Your task to perform on an android device: turn on showing notifications on the lock screen Image 0: 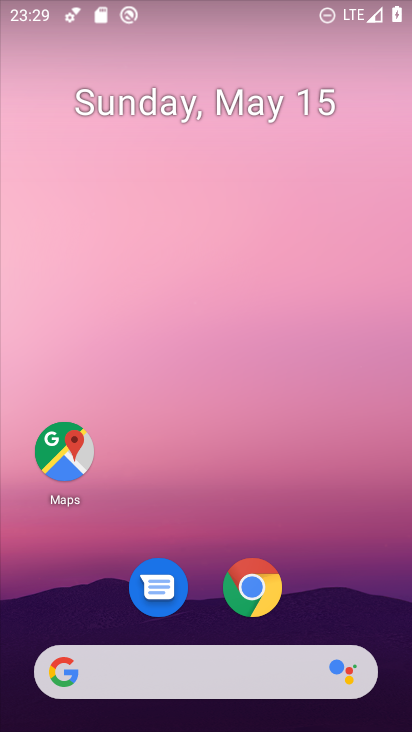
Step 0: drag from (214, 591) to (259, 118)
Your task to perform on an android device: turn on showing notifications on the lock screen Image 1: 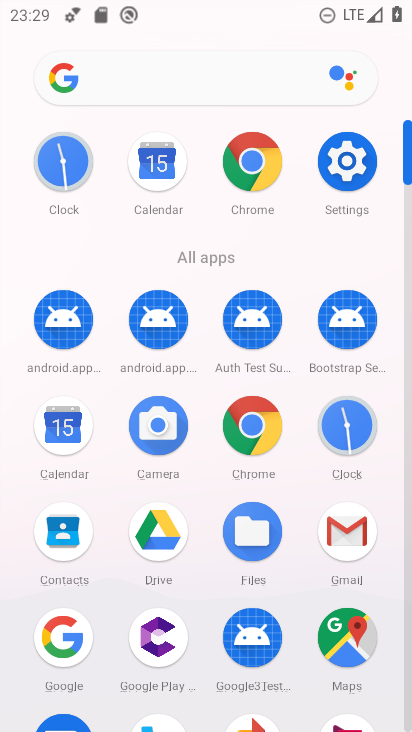
Step 1: click (327, 152)
Your task to perform on an android device: turn on showing notifications on the lock screen Image 2: 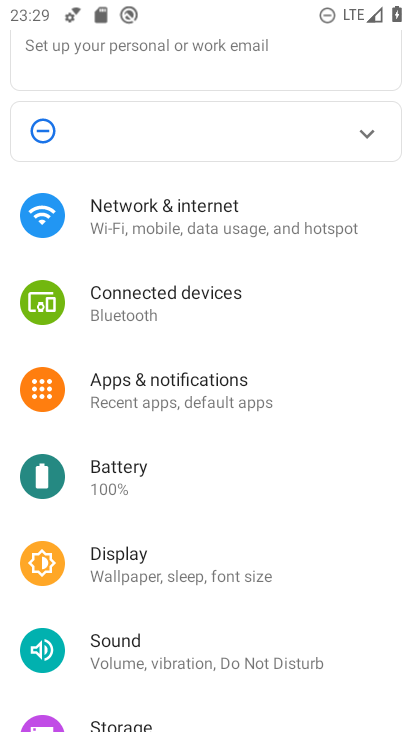
Step 2: click (177, 376)
Your task to perform on an android device: turn on showing notifications on the lock screen Image 3: 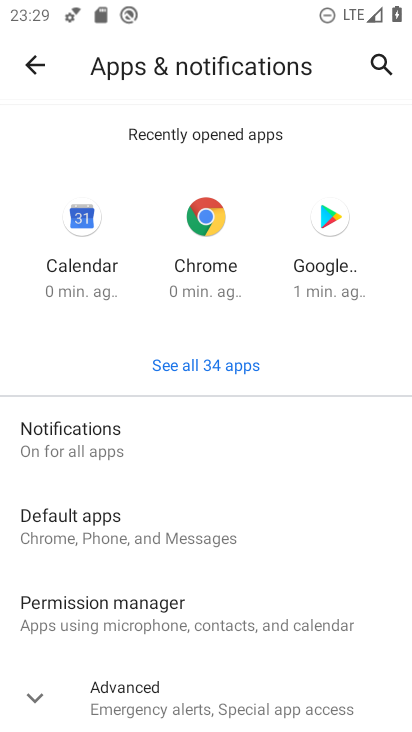
Step 3: click (117, 462)
Your task to perform on an android device: turn on showing notifications on the lock screen Image 4: 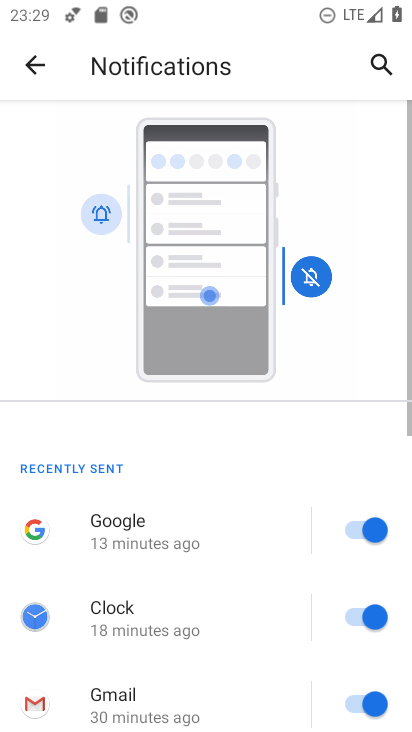
Step 4: drag from (216, 556) to (235, 204)
Your task to perform on an android device: turn on showing notifications on the lock screen Image 5: 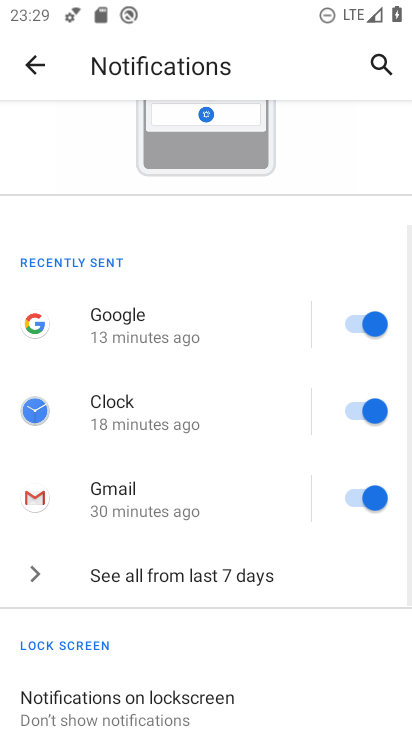
Step 5: drag from (226, 468) to (237, 213)
Your task to perform on an android device: turn on showing notifications on the lock screen Image 6: 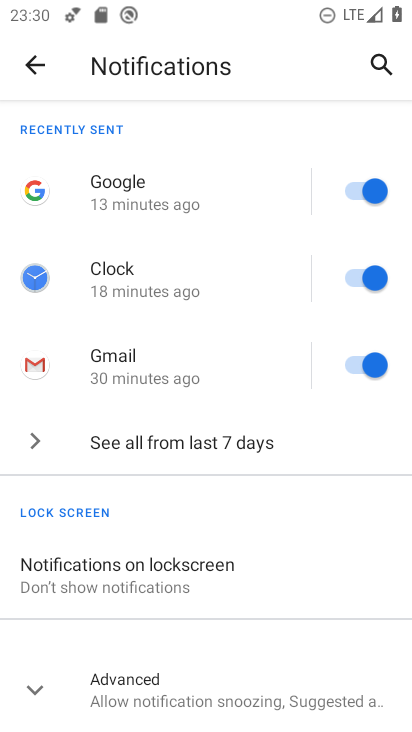
Step 6: drag from (209, 620) to (210, 429)
Your task to perform on an android device: turn on showing notifications on the lock screen Image 7: 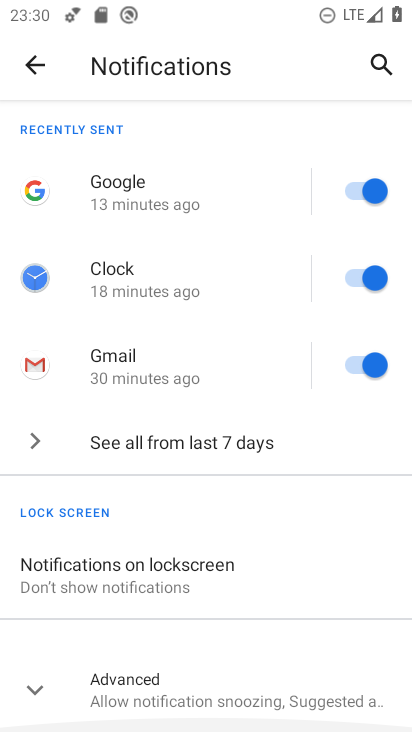
Step 7: click (135, 556)
Your task to perform on an android device: turn on showing notifications on the lock screen Image 8: 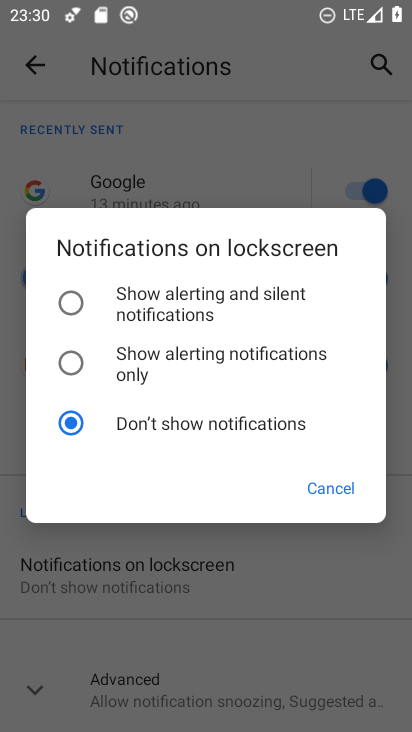
Step 8: click (153, 303)
Your task to perform on an android device: turn on showing notifications on the lock screen Image 9: 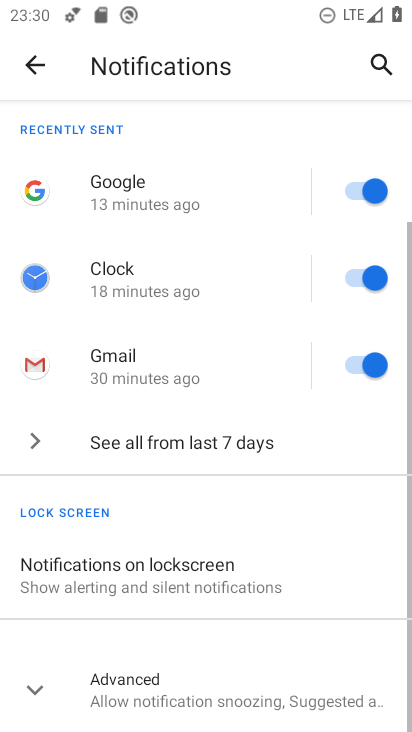
Step 9: task complete